Your task to perform on an android device: choose inbox layout in the gmail app Image 0: 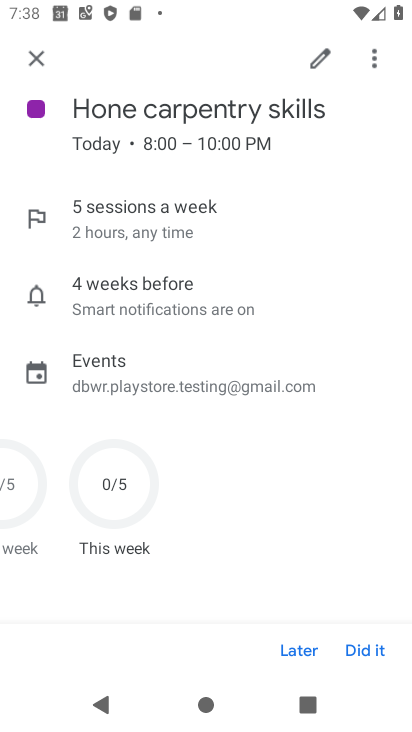
Step 0: press home button
Your task to perform on an android device: choose inbox layout in the gmail app Image 1: 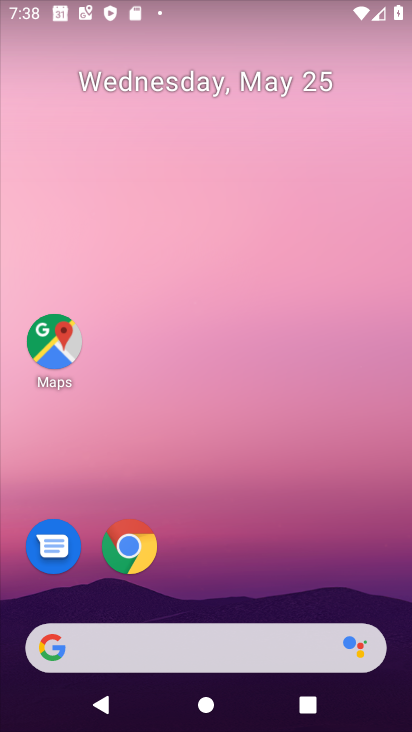
Step 1: drag from (192, 639) to (295, 271)
Your task to perform on an android device: choose inbox layout in the gmail app Image 2: 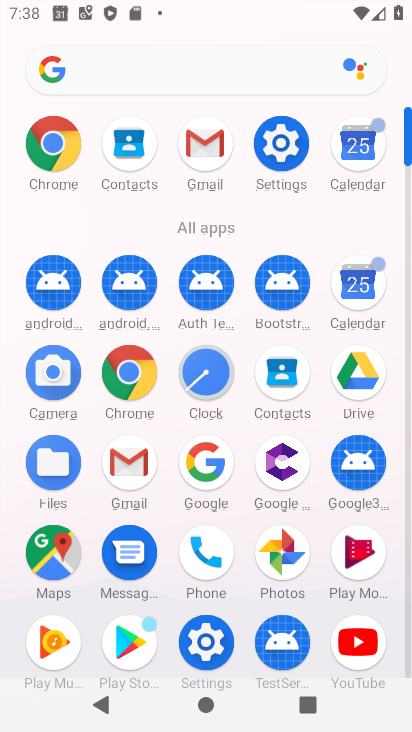
Step 2: click (204, 156)
Your task to perform on an android device: choose inbox layout in the gmail app Image 3: 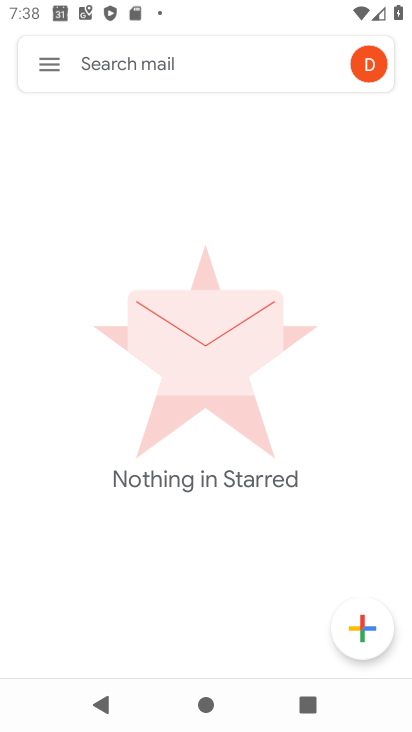
Step 3: click (42, 68)
Your task to perform on an android device: choose inbox layout in the gmail app Image 4: 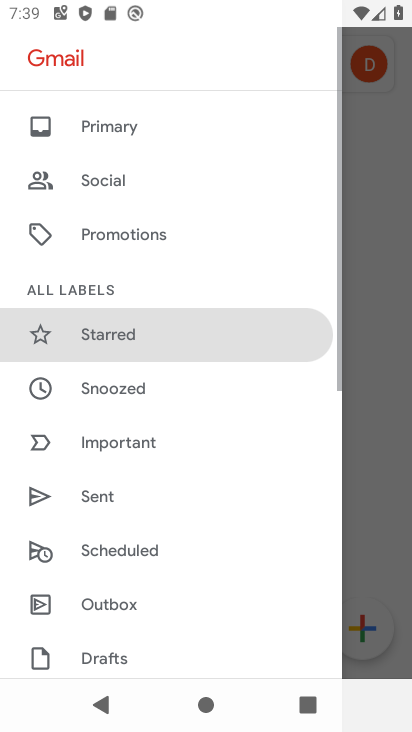
Step 4: drag from (220, 608) to (310, 147)
Your task to perform on an android device: choose inbox layout in the gmail app Image 5: 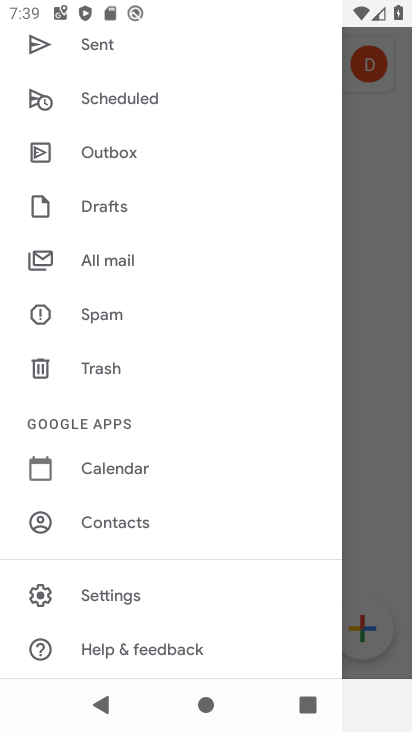
Step 5: click (120, 604)
Your task to perform on an android device: choose inbox layout in the gmail app Image 6: 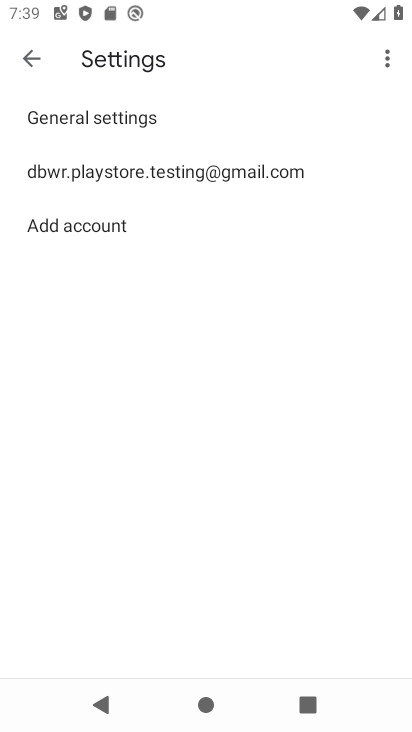
Step 6: click (238, 161)
Your task to perform on an android device: choose inbox layout in the gmail app Image 7: 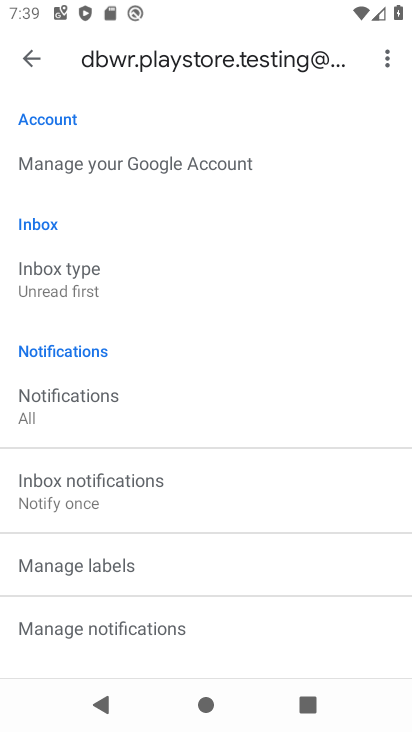
Step 7: click (49, 281)
Your task to perform on an android device: choose inbox layout in the gmail app Image 8: 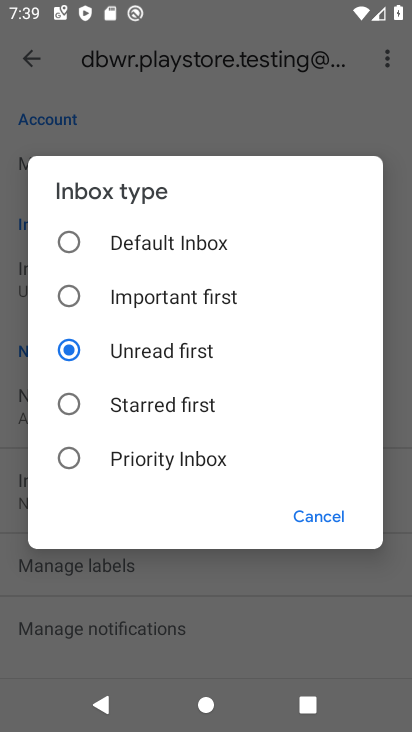
Step 8: click (77, 389)
Your task to perform on an android device: choose inbox layout in the gmail app Image 9: 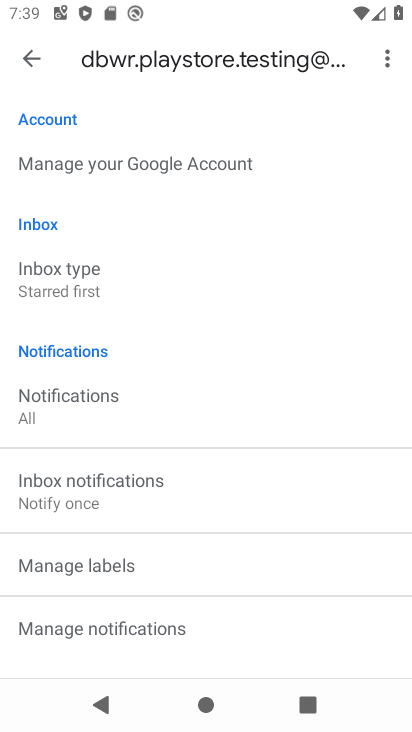
Step 9: task complete